Your task to perform on an android device: When is my next meeting? Image 0: 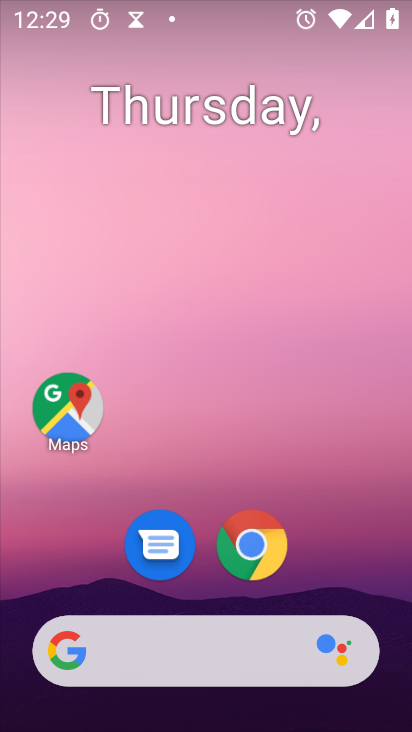
Step 0: press home button
Your task to perform on an android device: When is my next meeting? Image 1: 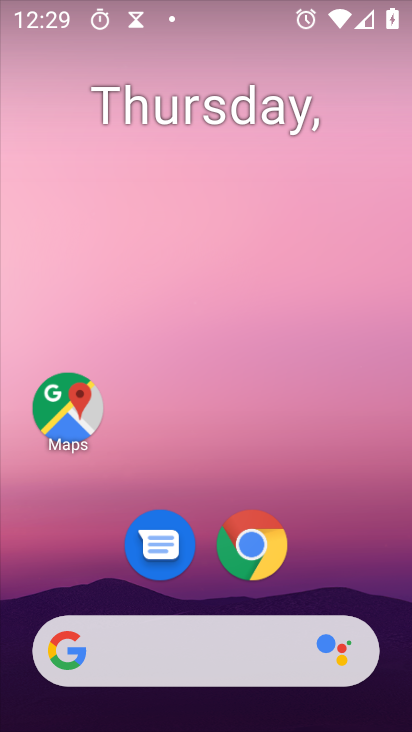
Step 1: click (81, 654)
Your task to perform on an android device: When is my next meeting? Image 2: 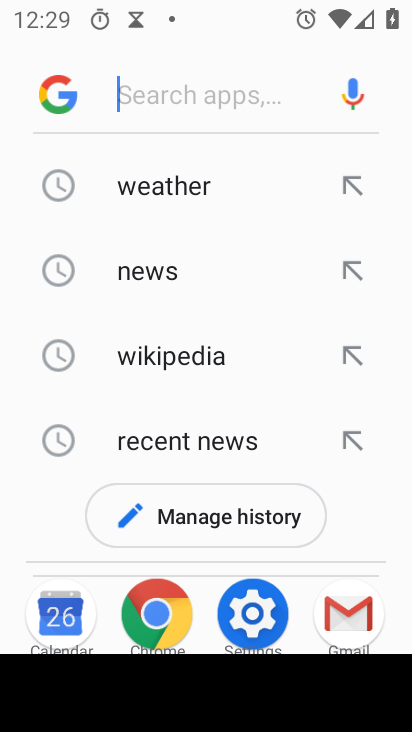
Step 2: click (65, 623)
Your task to perform on an android device: When is my next meeting? Image 3: 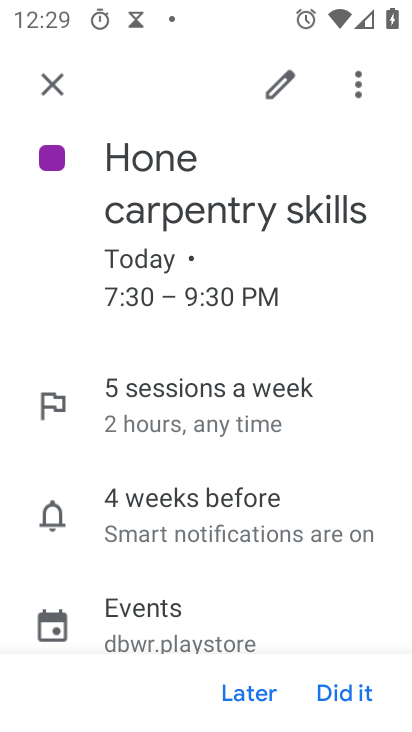
Step 3: task complete